Your task to perform on an android device: open chrome and create a bookmark for the current page Image 0: 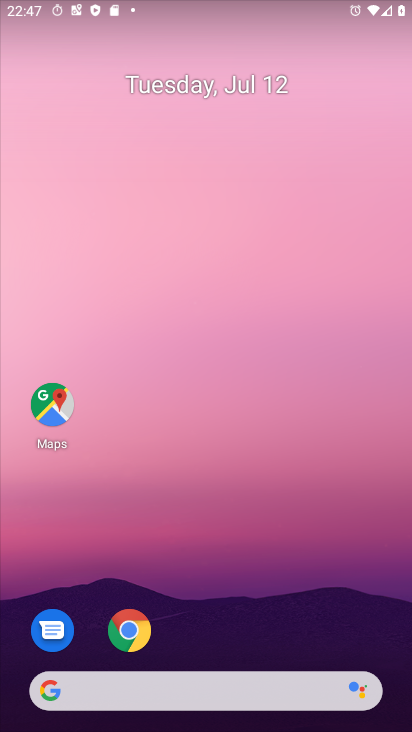
Step 0: click (126, 616)
Your task to perform on an android device: open chrome and create a bookmark for the current page Image 1: 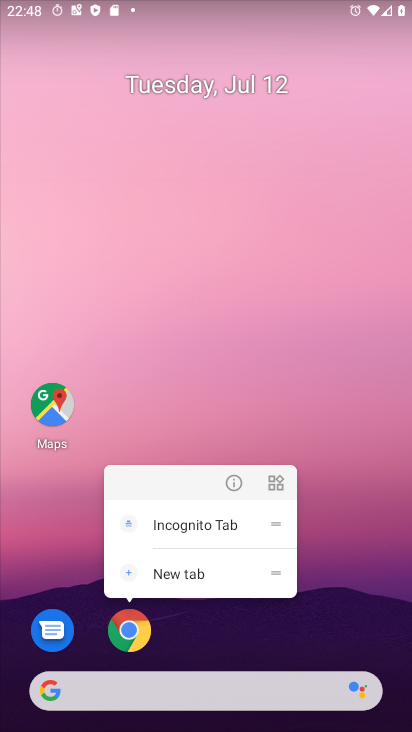
Step 1: click (288, 326)
Your task to perform on an android device: open chrome and create a bookmark for the current page Image 2: 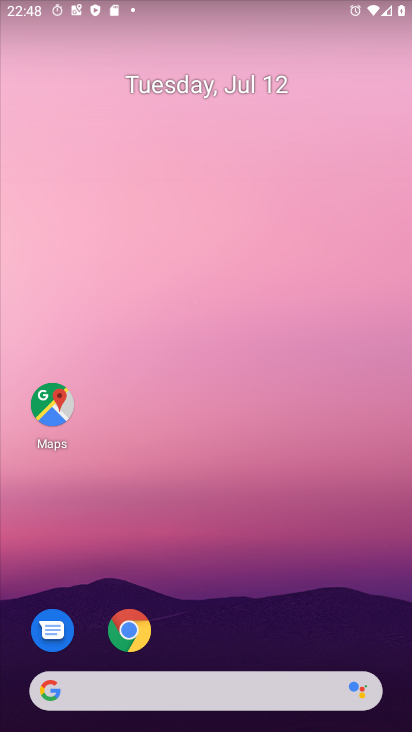
Step 2: click (131, 627)
Your task to perform on an android device: open chrome and create a bookmark for the current page Image 3: 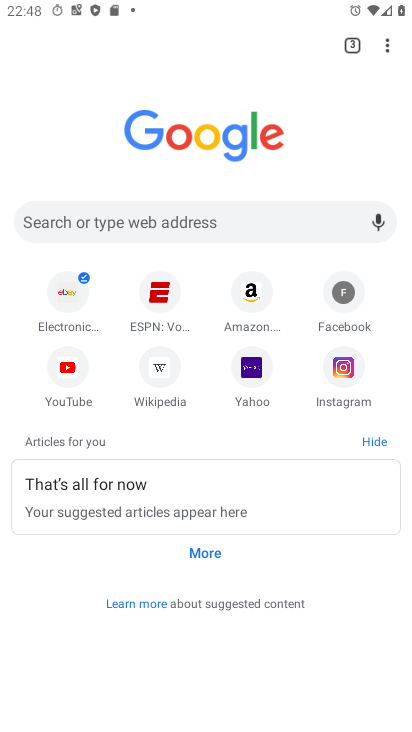
Step 3: task complete